Your task to perform on an android device: Open settings Image 0: 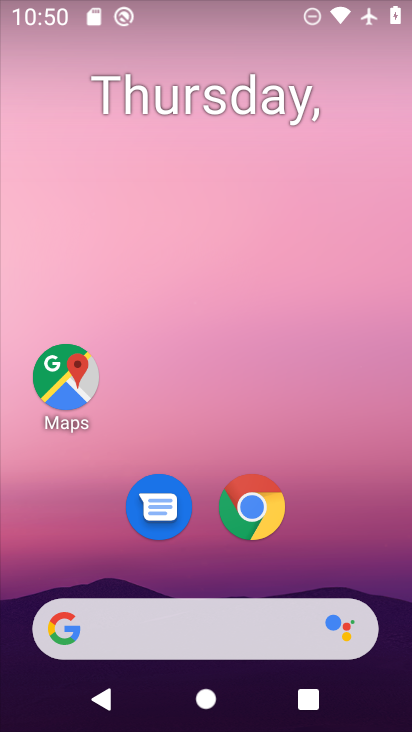
Step 0: drag from (343, 586) to (334, 5)
Your task to perform on an android device: Open settings Image 1: 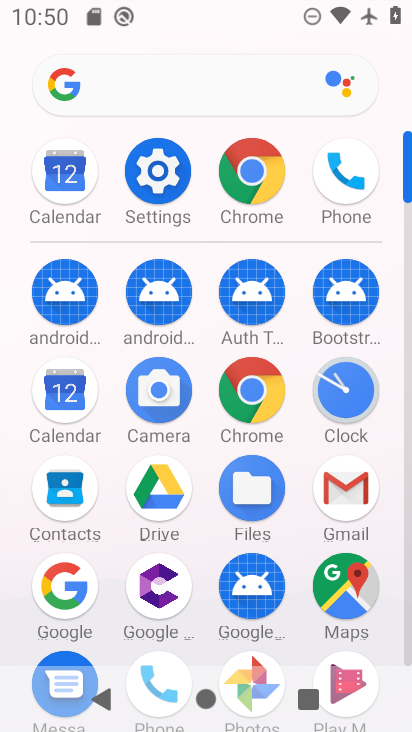
Step 1: click (150, 172)
Your task to perform on an android device: Open settings Image 2: 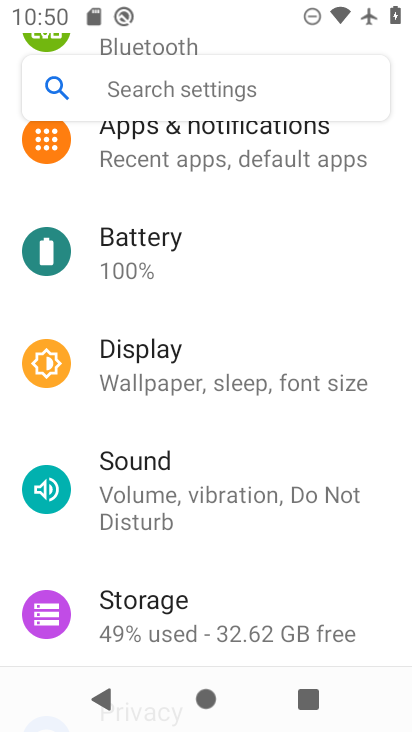
Step 2: task complete